Your task to perform on an android device: turn on javascript in the chrome app Image 0: 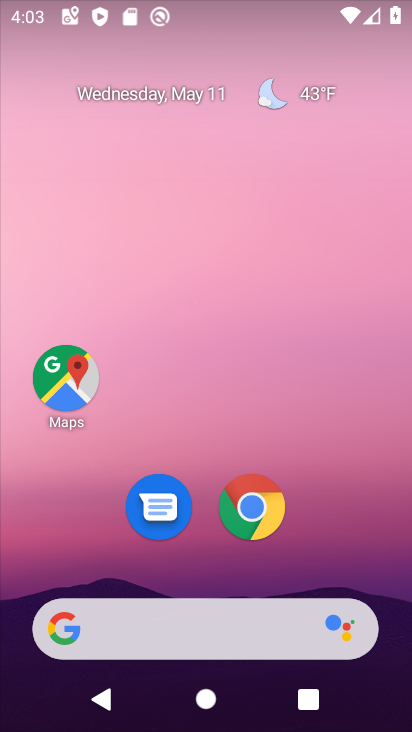
Step 0: drag from (233, 483) to (207, 177)
Your task to perform on an android device: turn on javascript in the chrome app Image 1: 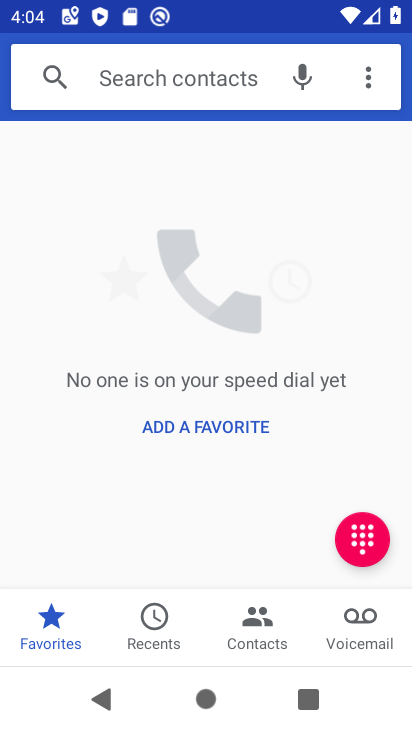
Step 1: press home button
Your task to perform on an android device: turn on javascript in the chrome app Image 2: 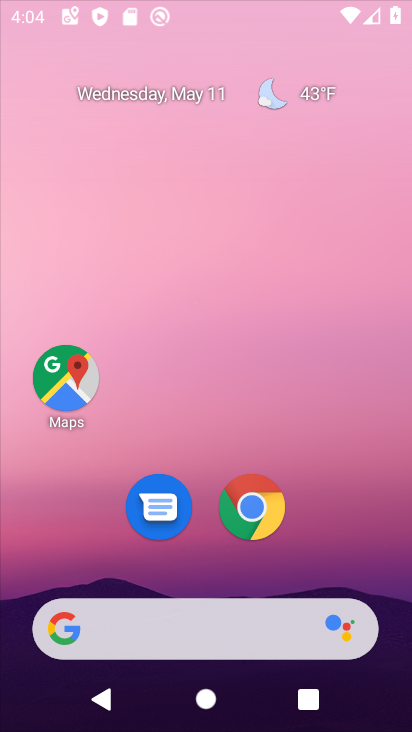
Step 2: drag from (255, 591) to (331, 193)
Your task to perform on an android device: turn on javascript in the chrome app Image 3: 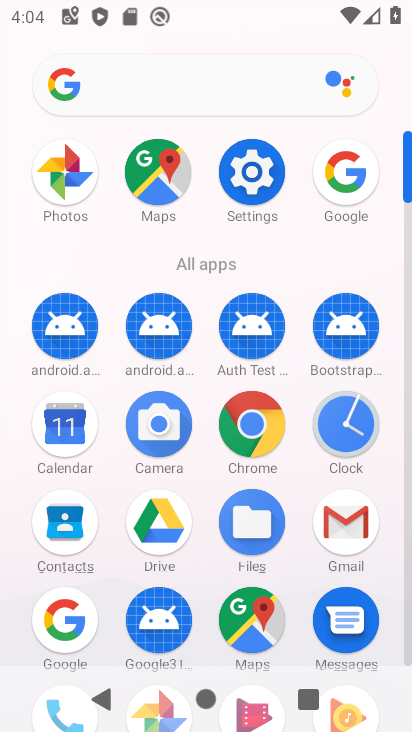
Step 3: click (259, 446)
Your task to perform on an android device: turn on javascript in the chrome app Image 4: 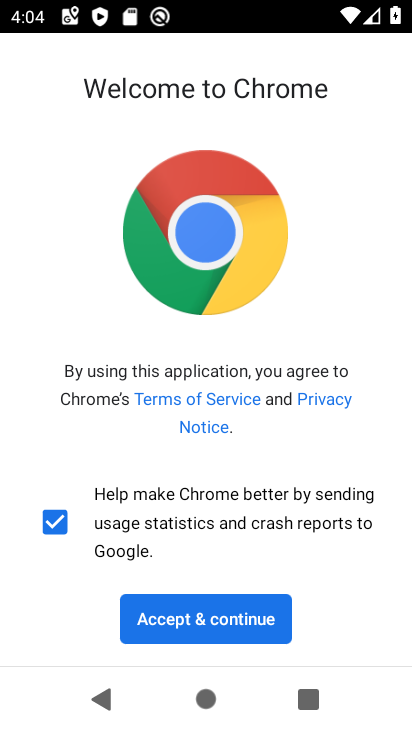
Step 4: click (271, 629)
Your task to perform on an android device: turn on javascript in the chrome app Image 5: 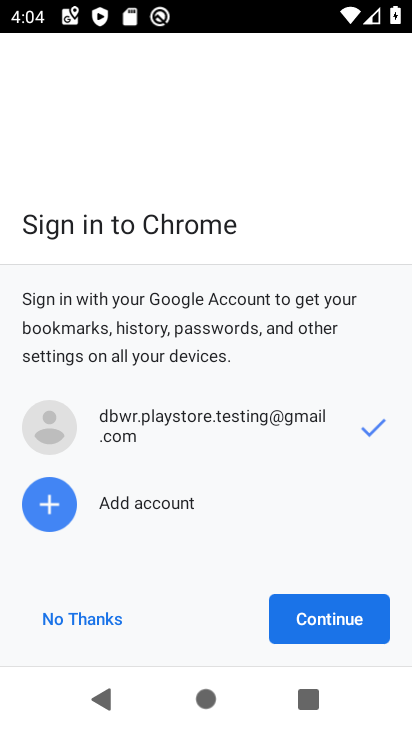
Step 5: click (333, 617)
Your task to perform on an android device: turn on javascript in the chrome app Image 6: 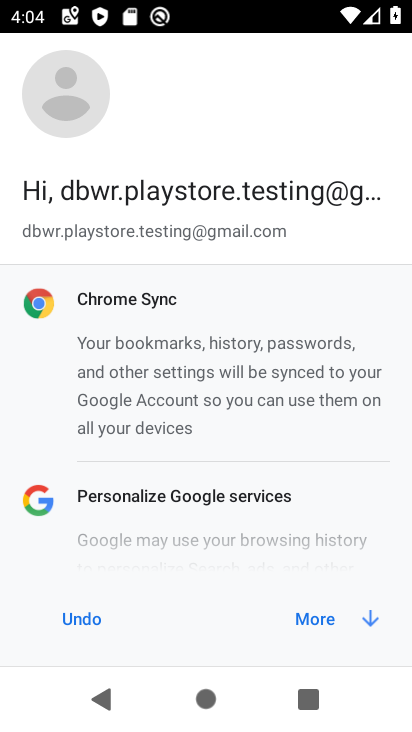
Step 6: click (328, 622)
Your task to perform on an android device: turn on javascript in the chrome app Image 7: 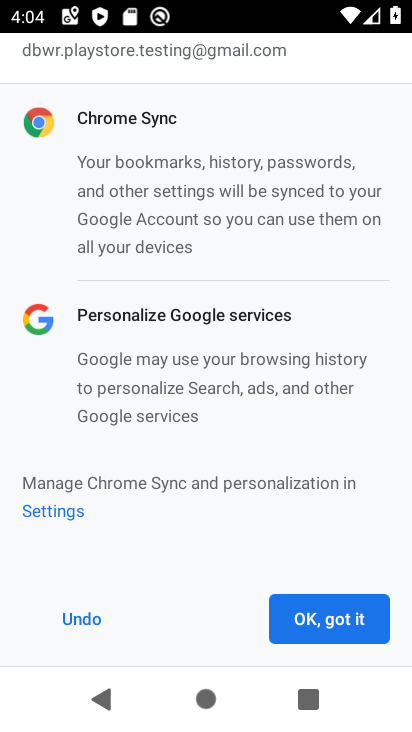
Step 7: click (330, 620)
Your task to perform on an android device: turn on javascript in the chrome app Image 8: 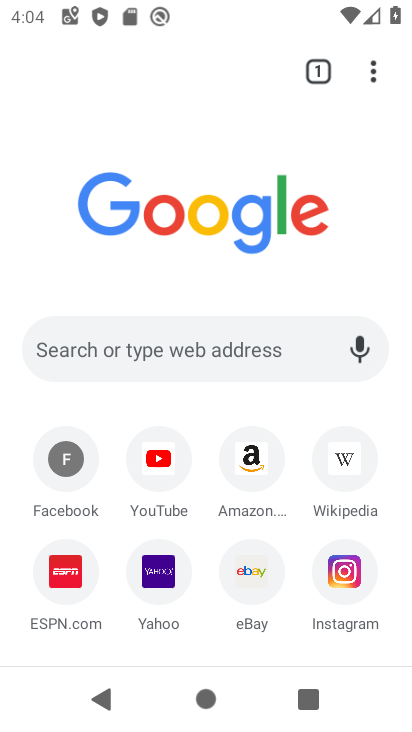
Step 8: click (382, 76)
Your task to perform on an android device: turn on javascript in the chrome app Image 9: 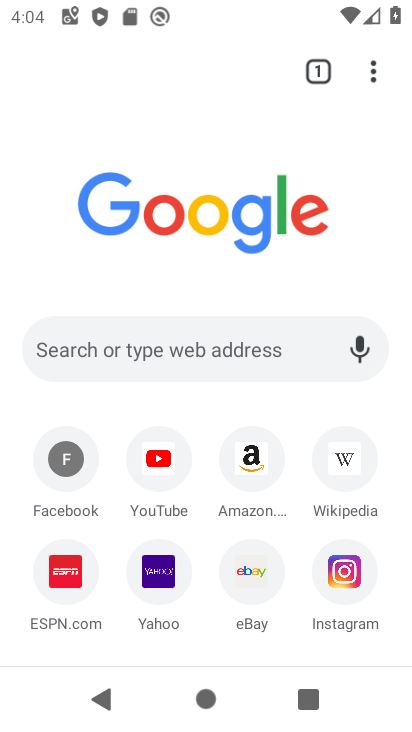
Step 9: click (380, 78)
Your task to perform on an android device: turn on javascript in the chrome app Image 10: 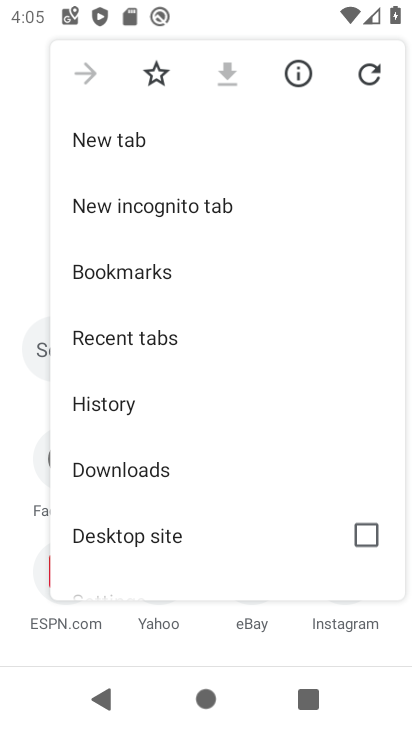
Step 10: drag from (175, 492) to (188, 148)
Your task to perform on an android device: turn on javascript in the chrome app Image 11: 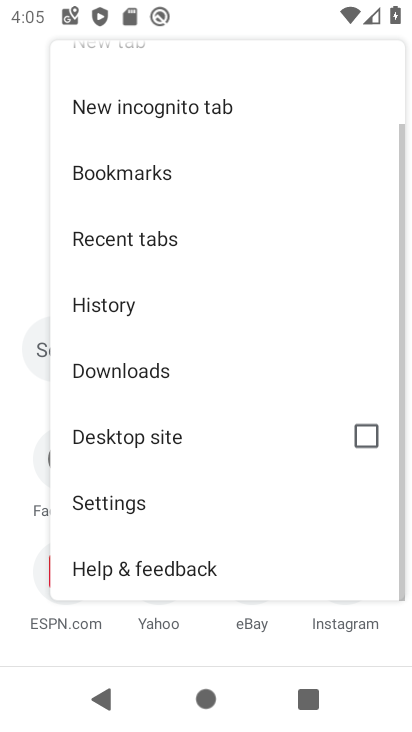
Step 11: click (143, 510)
Your task to perform on an android device: turn on javascript in the chrome app Image 12: 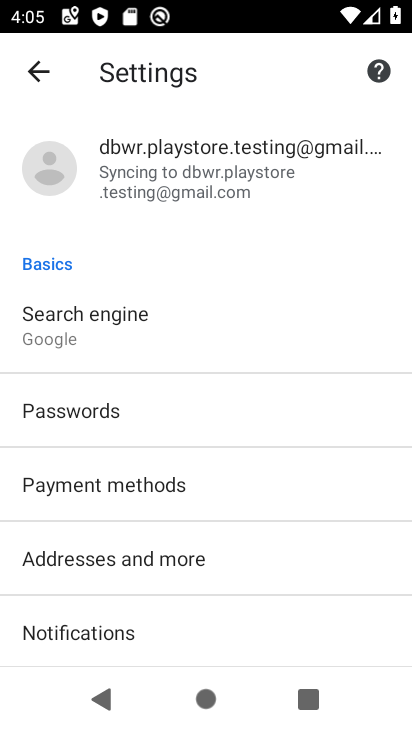
Step 12: drag from (190, 523) to (230, 187)
Your task to perform on an android device: turn on javascript in the chrome app Image 13: 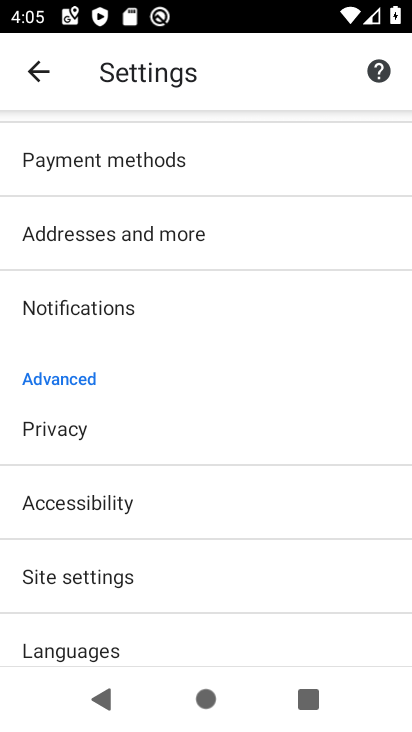
Step 13: click (133, 579)
Your task to perform on an android device: turn on javascript in the chrome app Image 14: 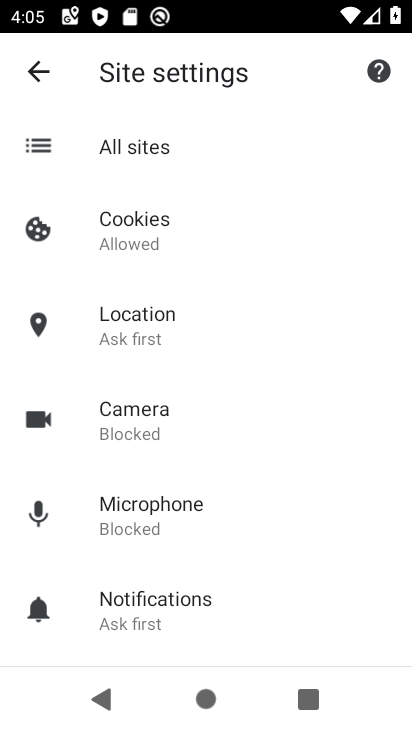
Step 14: drag from (194, 469) to (226, 186)
Your task to perform on an android device: turn on javascript in the chrome app Image 15: 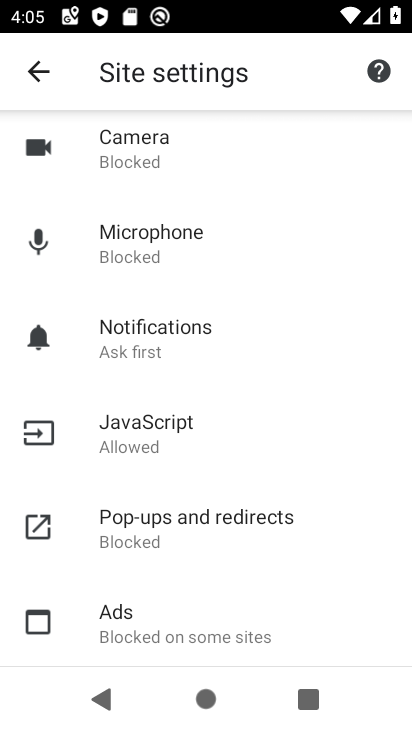
Step 15: click (190, 431)
Your task to perform on an android device: turn on javascript in the chrome app Image 16: 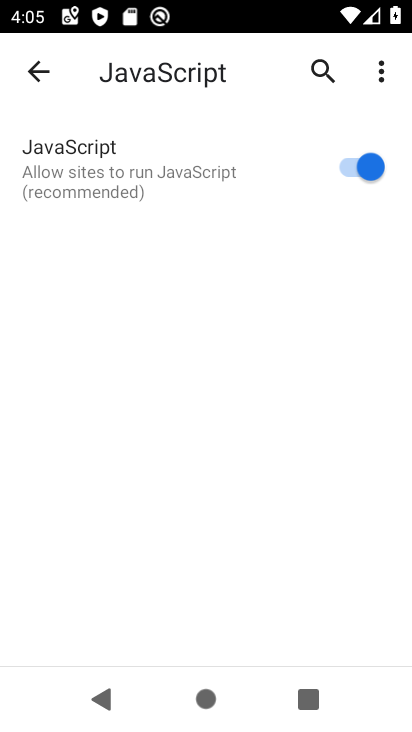
Step 16: task complete